Your task to perform on an android device: Set the phone to "Do not disturb". Image 0: 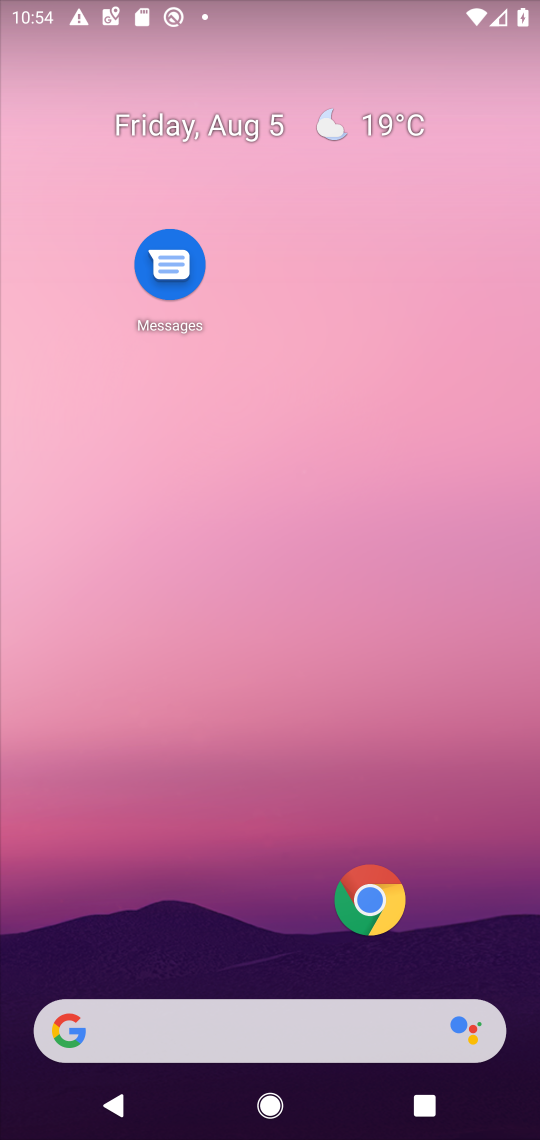
Step 0: press home button
Your task to perform on an android device: Set the phone to "Do not disturb". Image 1: 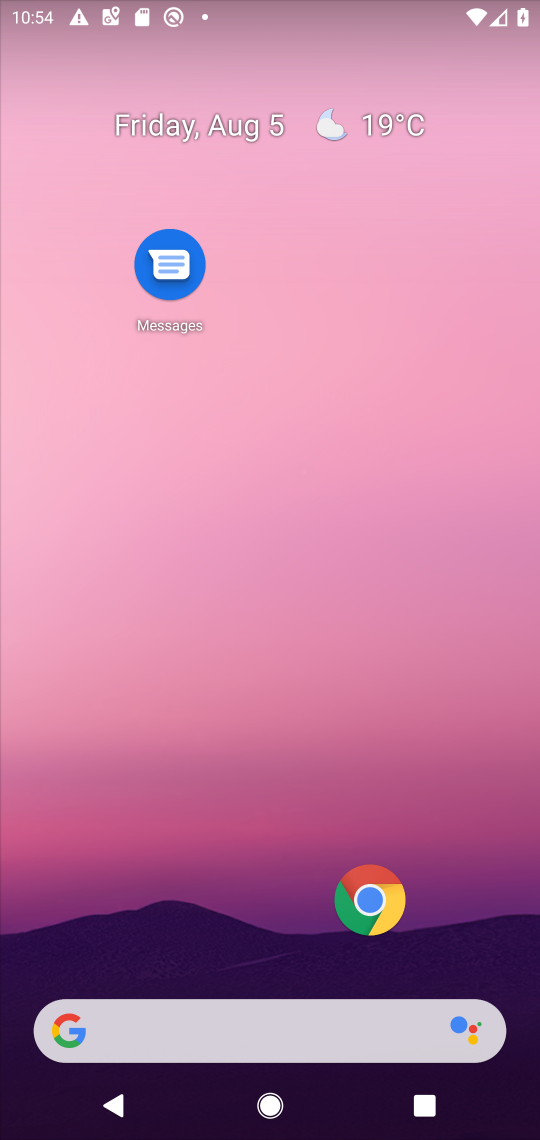
Step 1: press home button
Your task to perform on an android device: Set the phone to "Do not disturb". Image 2: 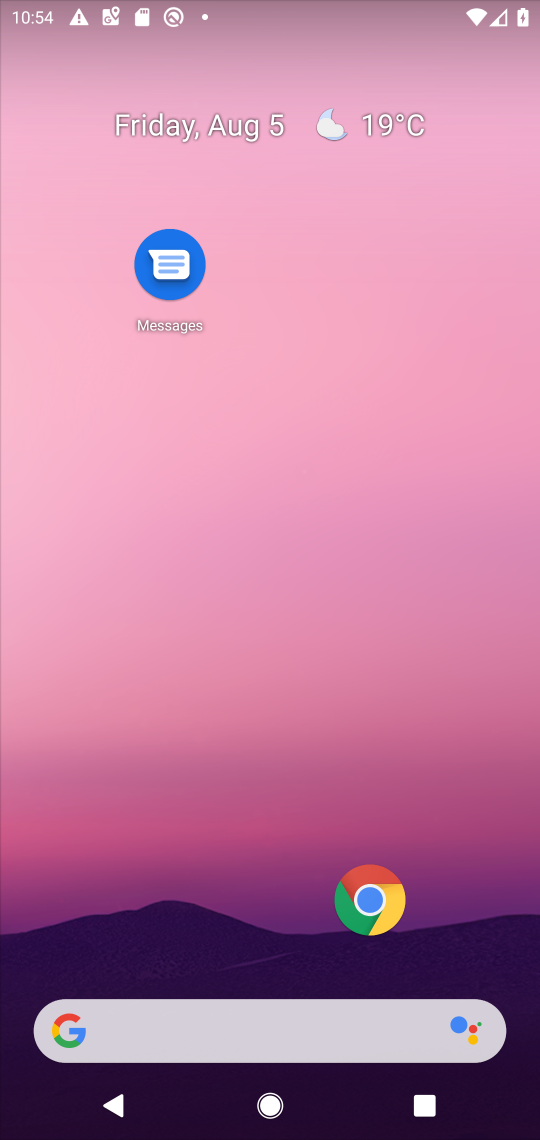
Step 2: drag from (475, 22) to (501, 954)
Your task to perform on an android device: Set the phone to "Do not disturb". Image 3: 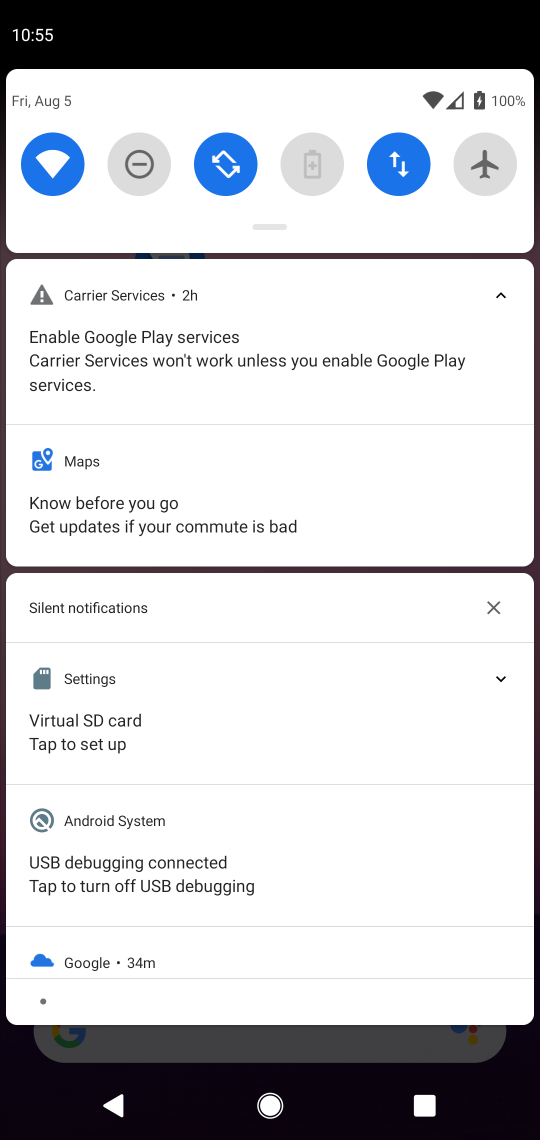
Step 3: click (114, 164)
Your task to perform on an android device: Set the phone to "Do not disturb". Image 4: 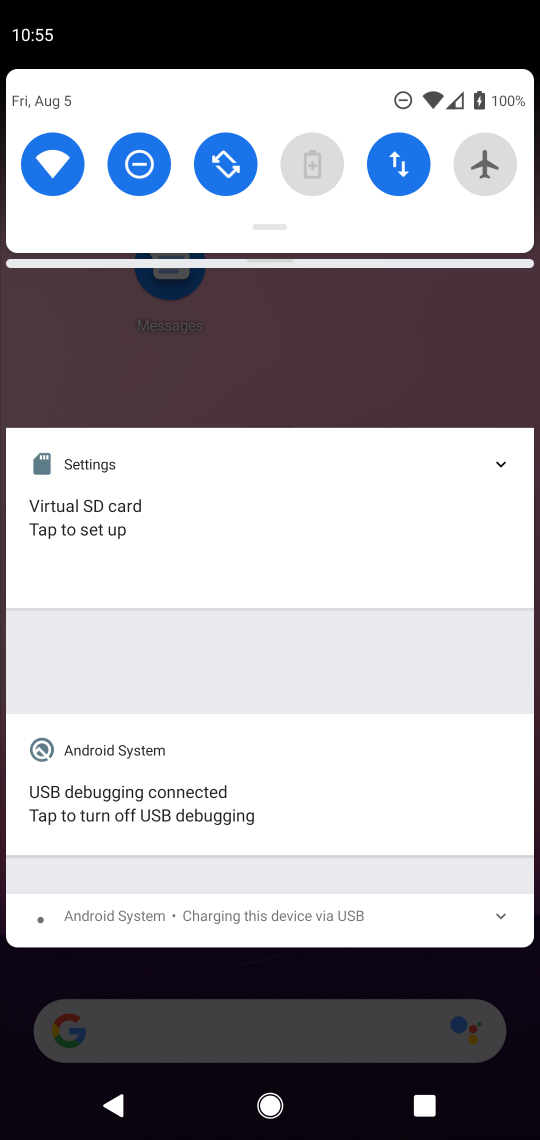
Step 4: task complete